Your task to perform on an android device: Clear the cart on target. Image 0: 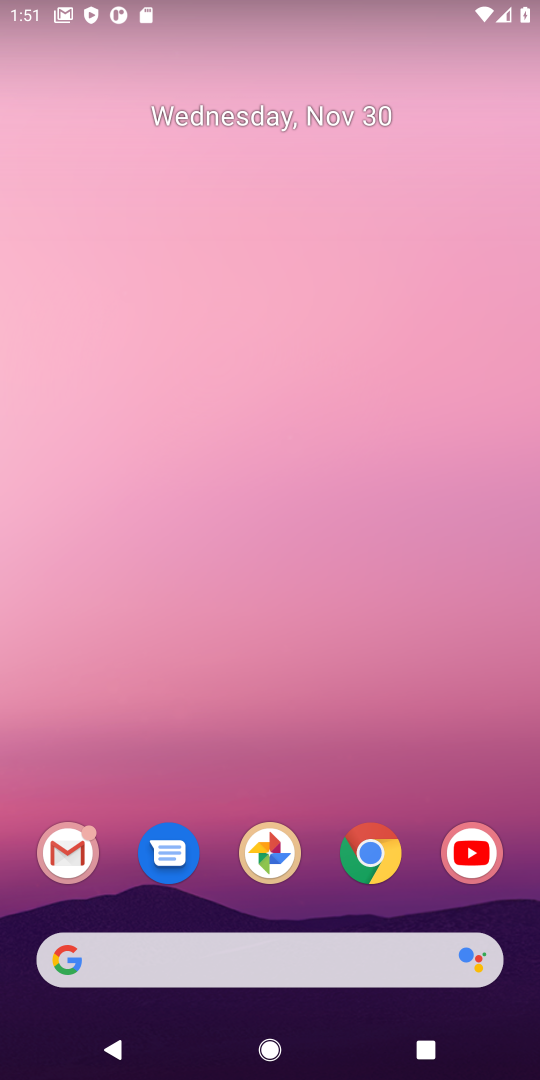
Step 0: click (368, 849)
Your task to perform on an android device: Clear the cart on target. Image 1: 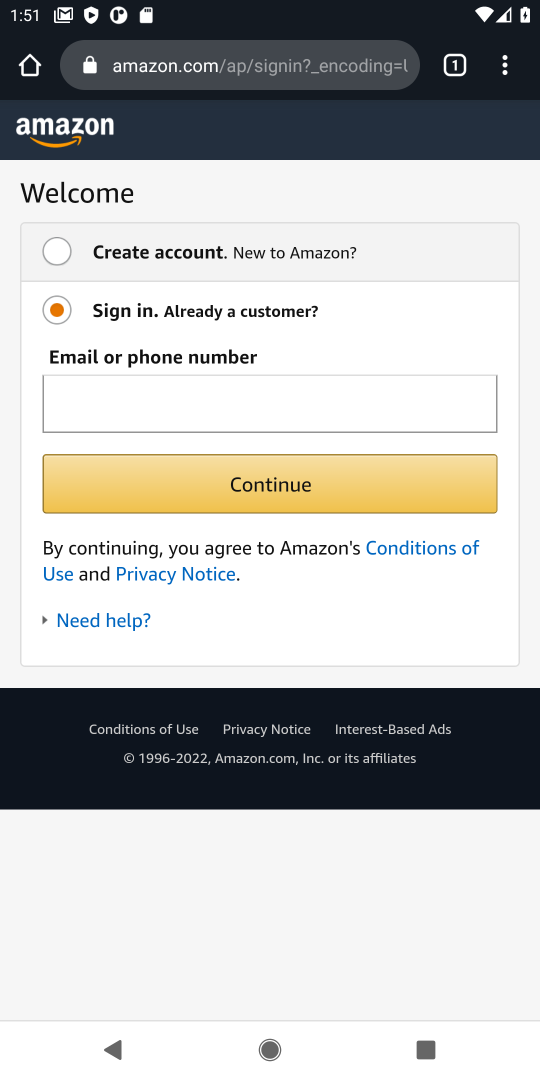
Step 1: click (245, 59)
Your task to perform on an android device: Clear the cart on target. Image 2: 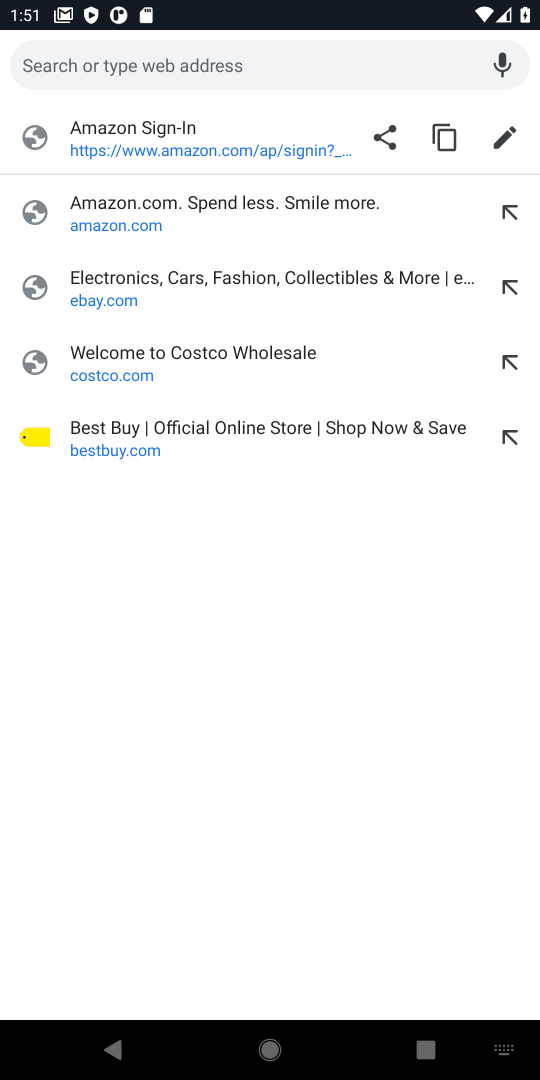
Step 2: type "target.com"
Your task to perform on an android device: Clear the cart on target. Image 3: 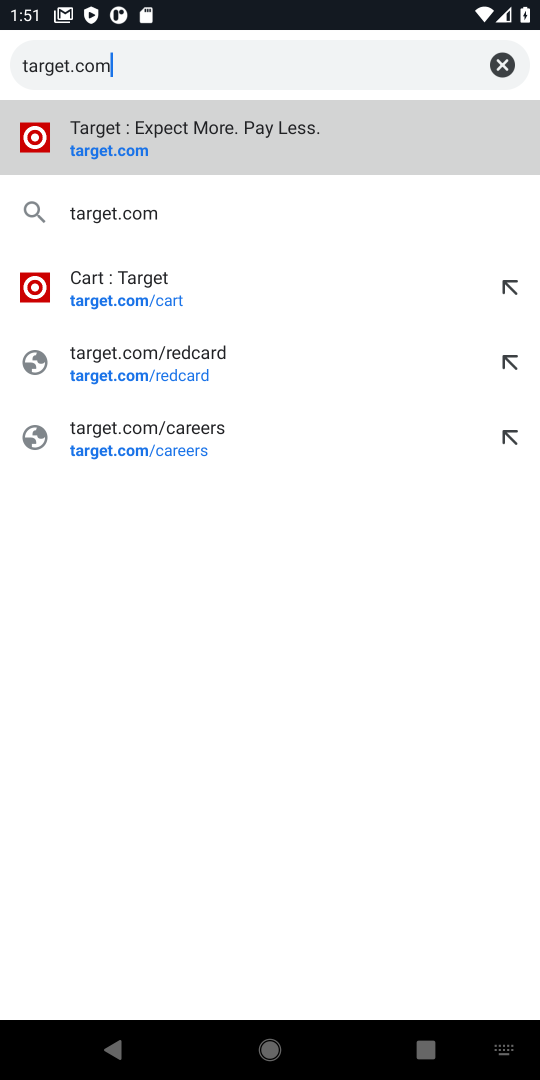
Step 3: click (91, 153)
Your task to perform on an android device: Clear the cart on target. Image 4: 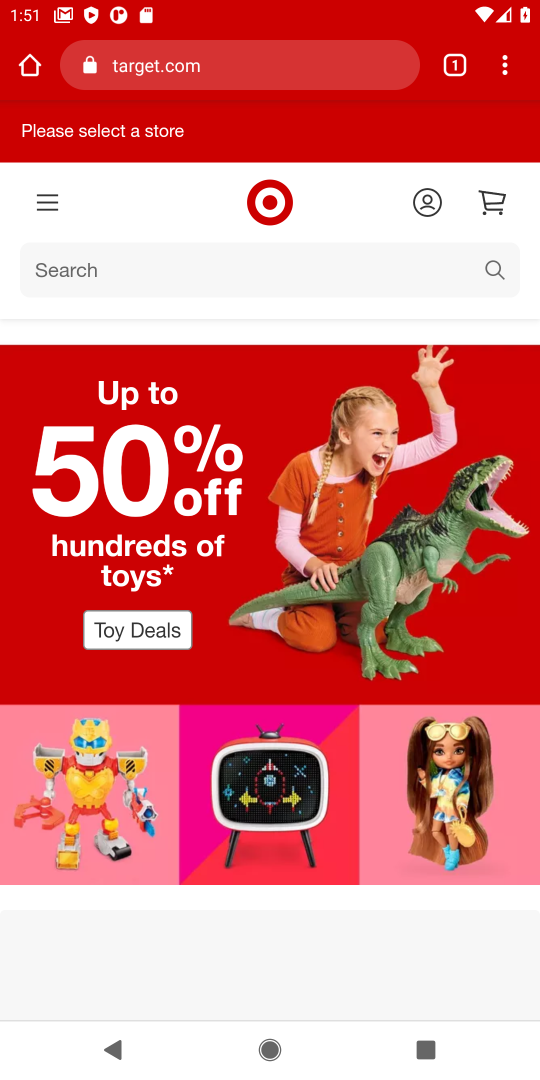
Step 4: click (497, 203)
Your task to perform on an android device: Clear the cart on target. Image 5: 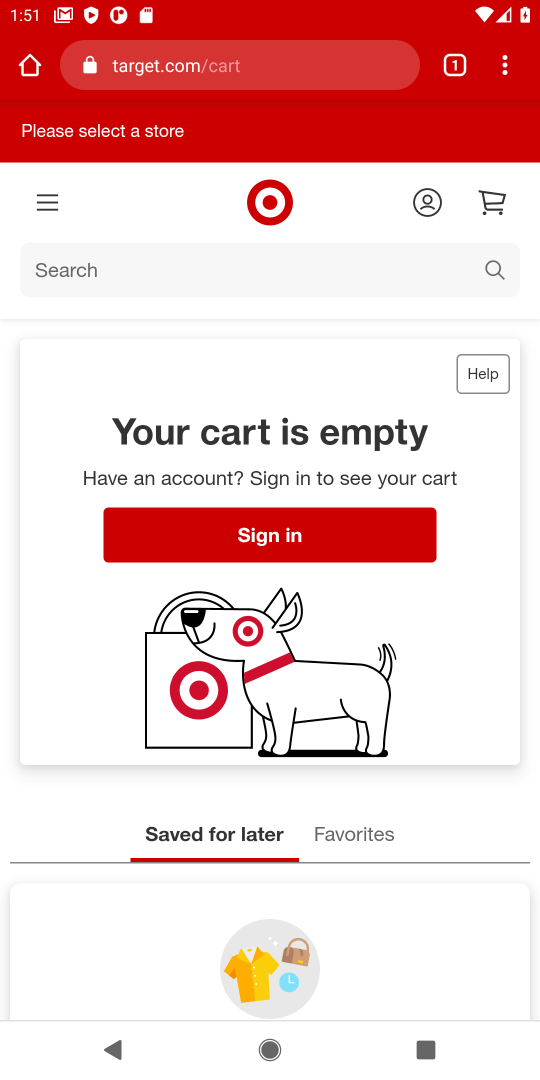
Step 5: task complete